Your task to perform on an android device: Open maps Image 0: 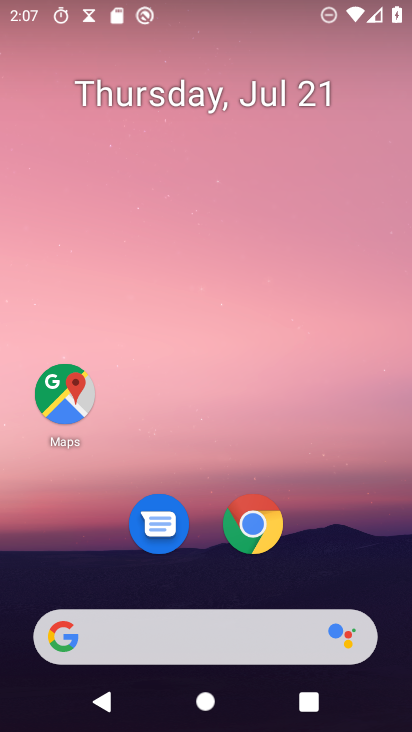
Step 0: press home button
Your task to perform on an android device: Open maps Image 1: 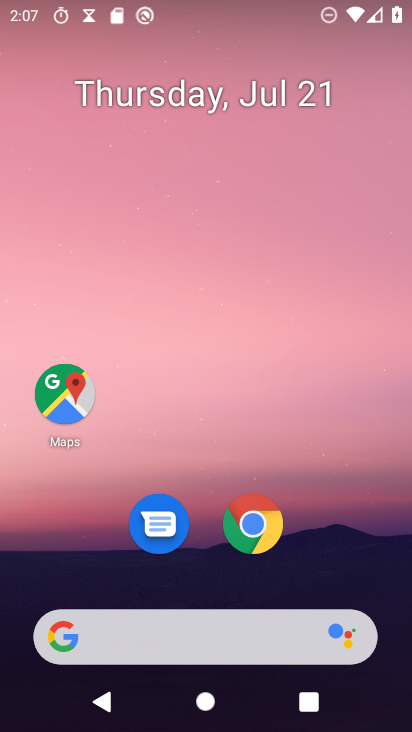
Step 1: click (57, 394)
Your task to perform on an android device: Open maps Image 2: 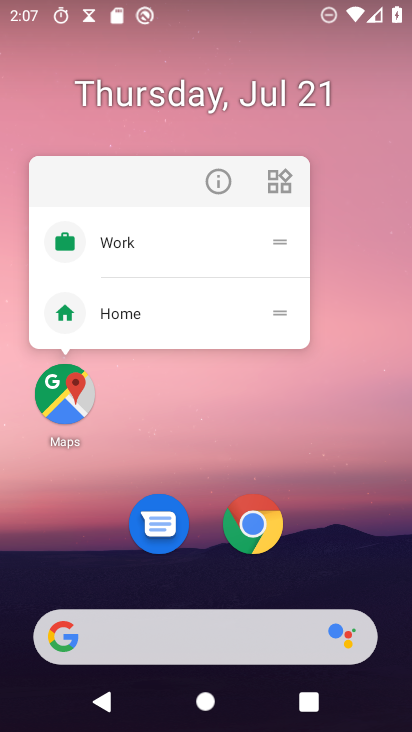
Step 2: click (65, 396)
Your task to perform on an android device: Open maps Image 3: 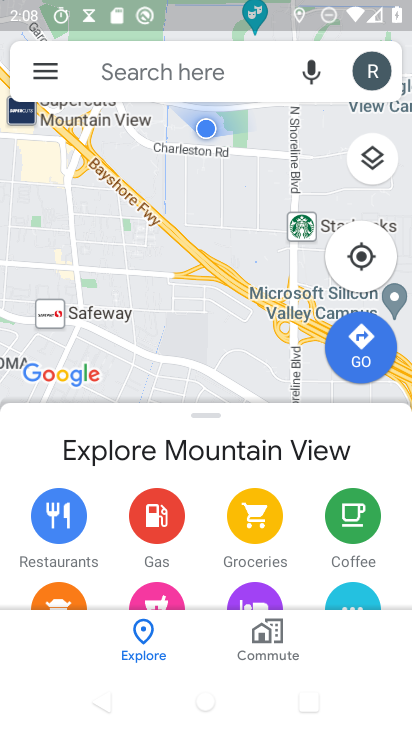
Step 3: task complete